Your task to perform on an android device: star an email in the gmail app Image 0: 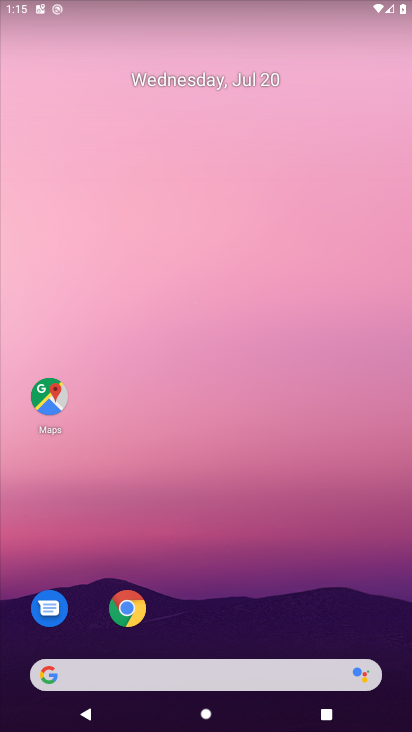
Step 0: drag from (218, 608) to (173, 261)
Your task to perform on an android device: star an email in the gmail app Image 1: 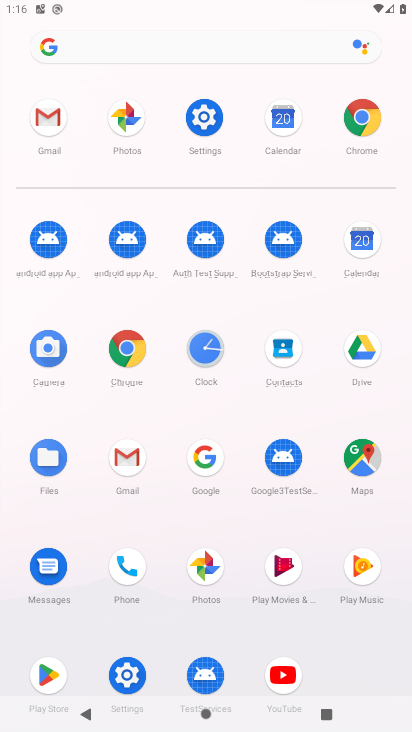
Step 1: click (131, 462)
Your task to perform on an android device: star an email in the gmail app Image 2: 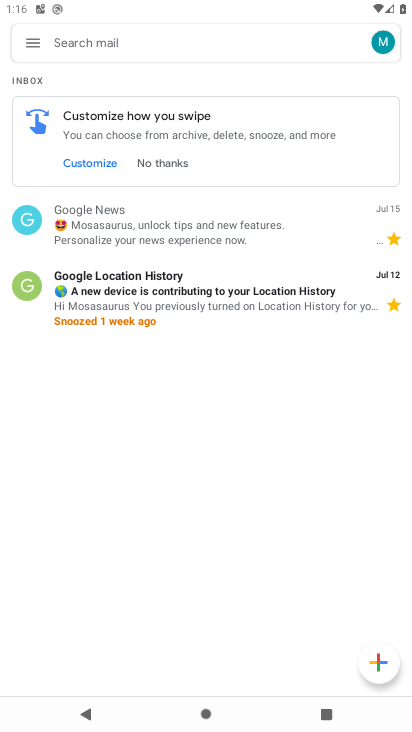
Step 2: click (305, 231)
Your task to perform on an android device: star an email in the gmail app Image 3: 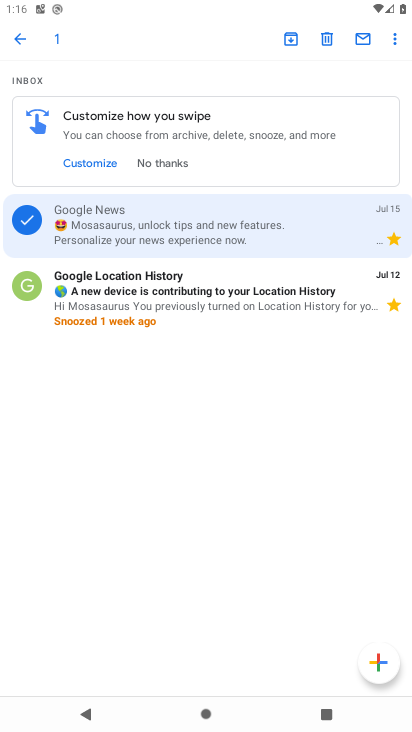
Step 3: task complete